Your task to perform on an android device: turn on improve location accuracy Image 0: 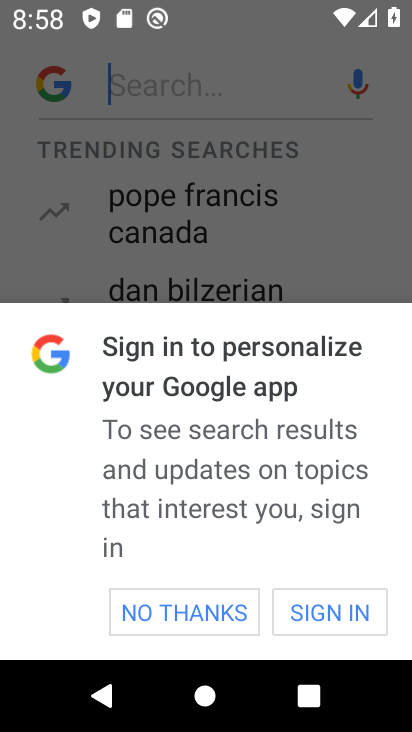
Step 0: press home button
Your task to perform on an android device: turn on improve location accuracy Image 1: 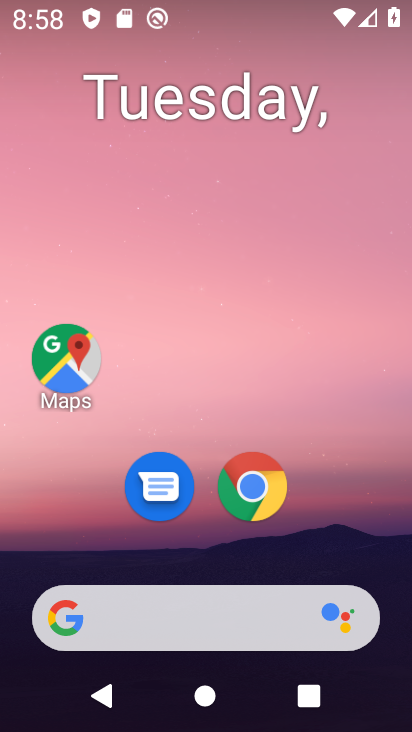
Step 1: drag from (369, 564) to (381, 176)
Your task to perform on an android device: turn on improve location accuracy Image 2: 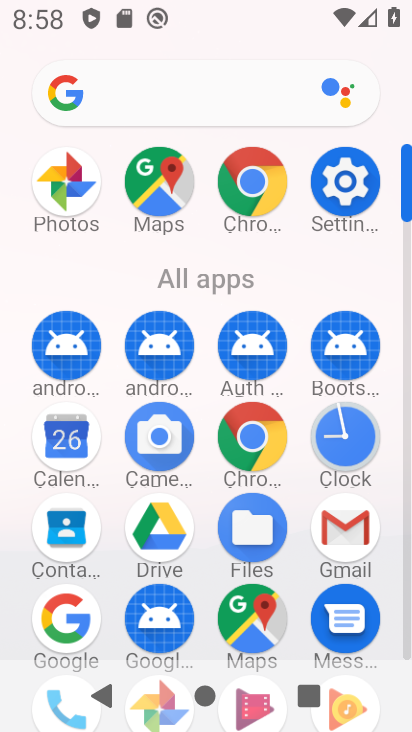
Step 2: click (353, 179)
Your task to perform on an android device: turn on improve location accuracy Image 3: 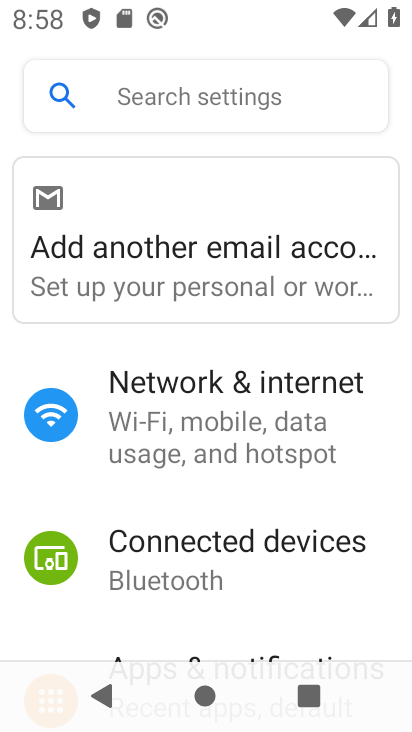
Step 3: drag from (374, 440) to (381, 393)
Your task to perform on an android device: turn on improve location accuracy Image 4: 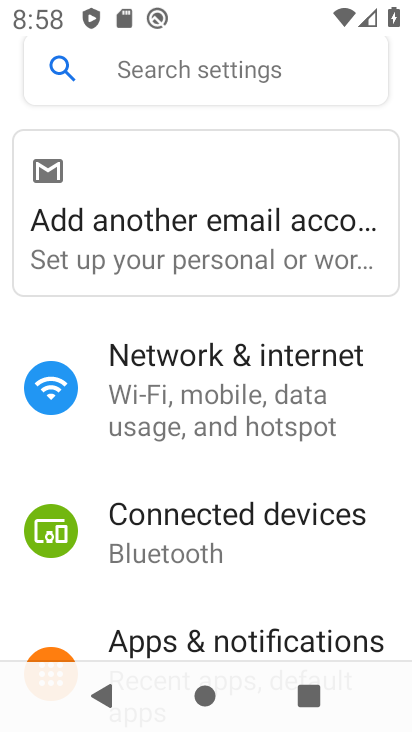
Step 4: drag from (362, 467) to (364, 384)
Your task to perform on an android device: turn on improve location accuracy Image 5: 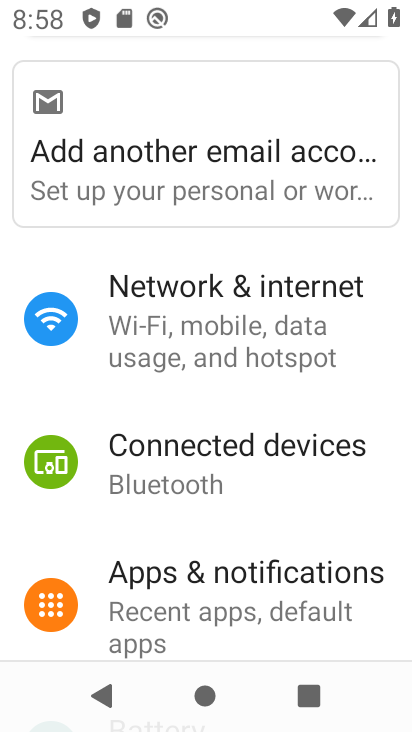
Step 5: drag from (368, 486) to (382, 412)
Your task to perform on an android device: turn on improve location accuracy Image 6: 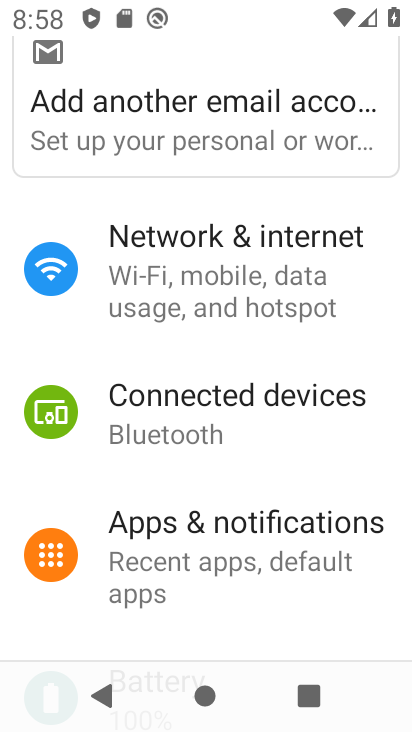
Step 6: drag from (373, 476) to (387, 388)
Your task to perform on an android device: turn on improve location accuracy Image 7: 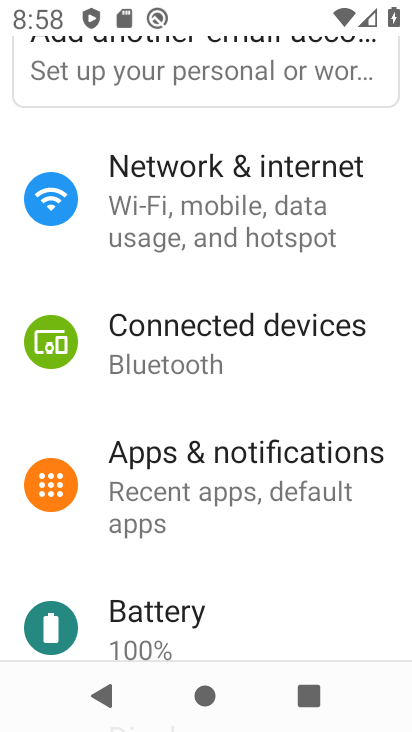
Step 7: drag from (362, 507) to (371, 409)
Your task to perform on an android device: turn on improve location accuracy Image 8: 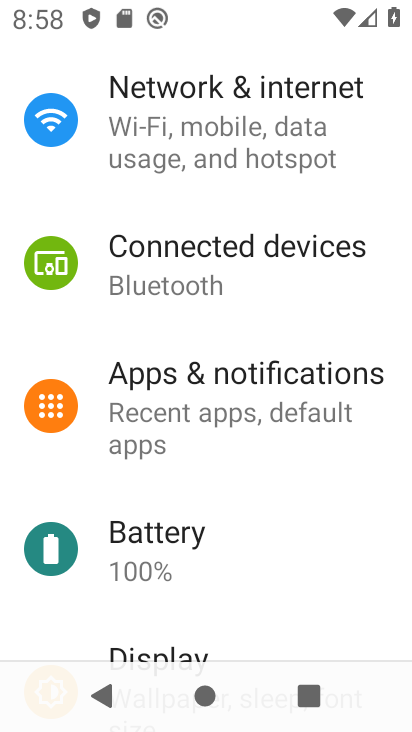
Step 8: drag from (359, 519) to (360, 438)
Your task to perform on an android device: turn on improve location accuracy Image 9: 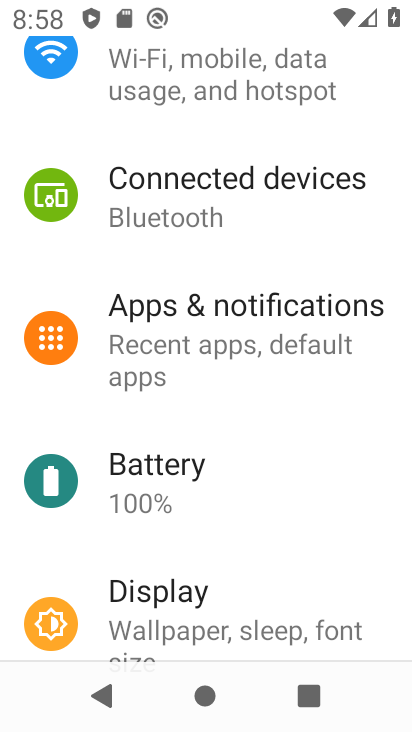
Step 9: drag from (346, 532) to (359, 439)
Your task to perform on an android device: turn on improve location accuracy Image 10: 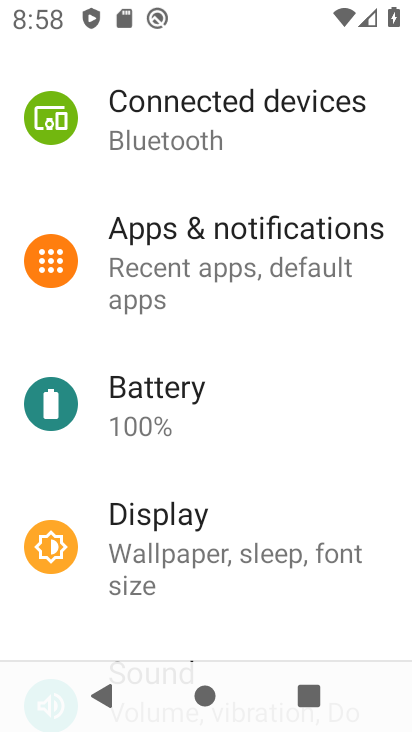
Step 10: drag from (345, 573) to (362, 450)
Your task to perform on an android device: turn on improve location accuracy Image 11: 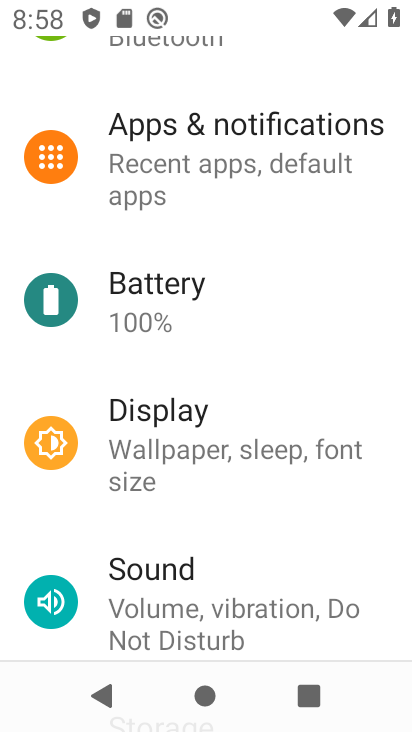
Step 11: drag from (349, 534) to (363, 453)
Your task to perform on an android device: turn on improve location accuracy Image 12: 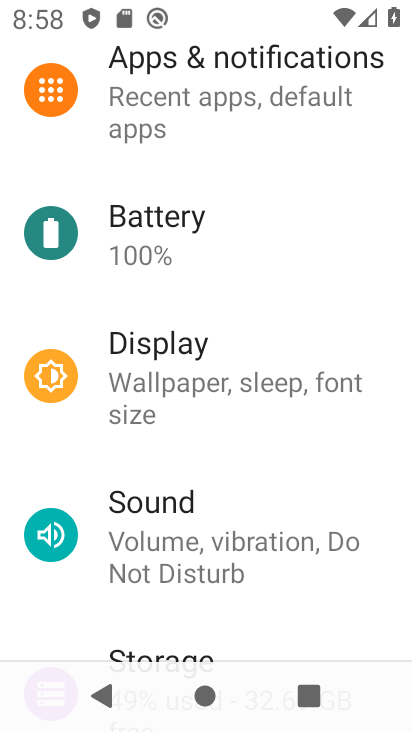
Step 12: drag from (353, 575) to (368, 476)
Your task to perform on an android device: turn on improve location accuracy Image 13: 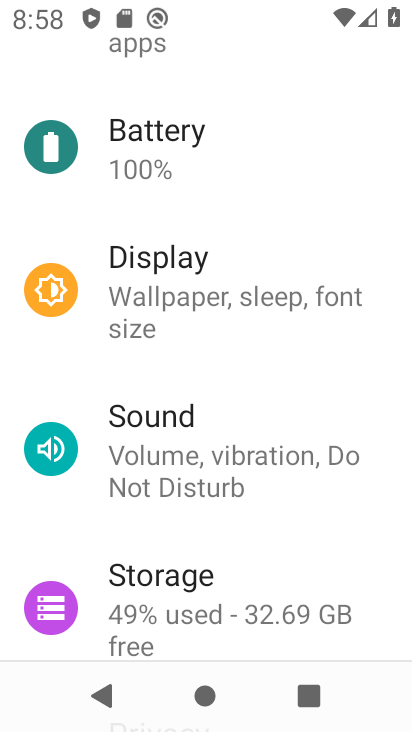
Step 13: drag from (348, 562) to (360, 484)
Your task to perform on an android device: turn on improve location accuracy Image 14: 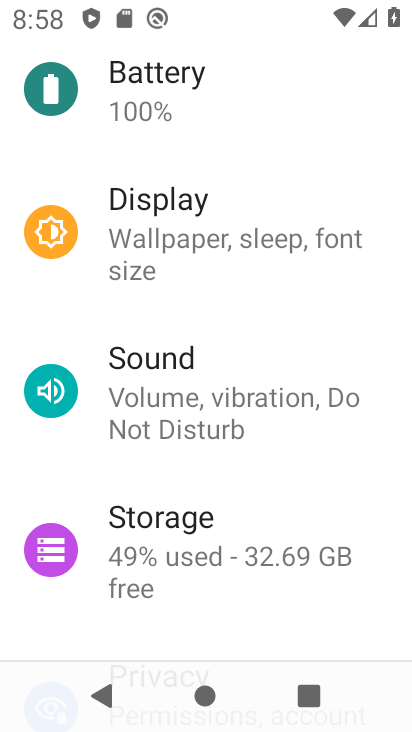
Step 14: drag from (359, 583) to (363, 502)
Your task to perform on an android device: turn on improve location accuracy Image 15: 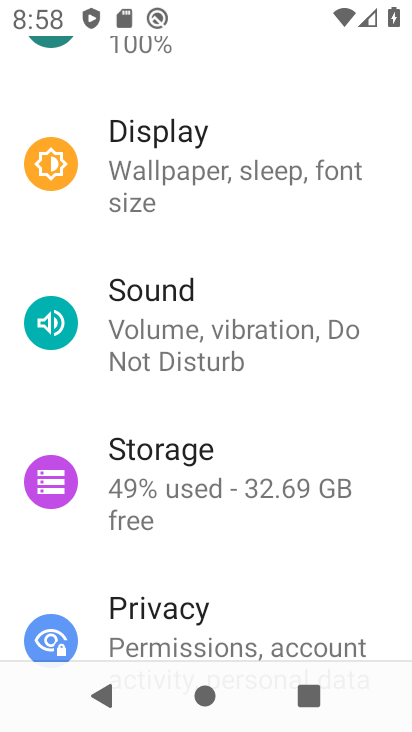
Step 15: drag from (341, 577) to (360, 502)
Your task to perform on an android device: turn on improve location accuracy Image 16: 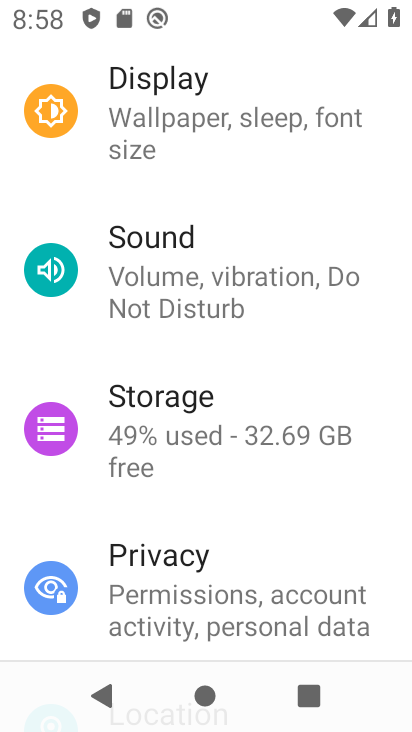
Step 16: drag from (354, 620) to (373, 491)
Your task to perform on an android device: turn on improve location accuracy Image 17: 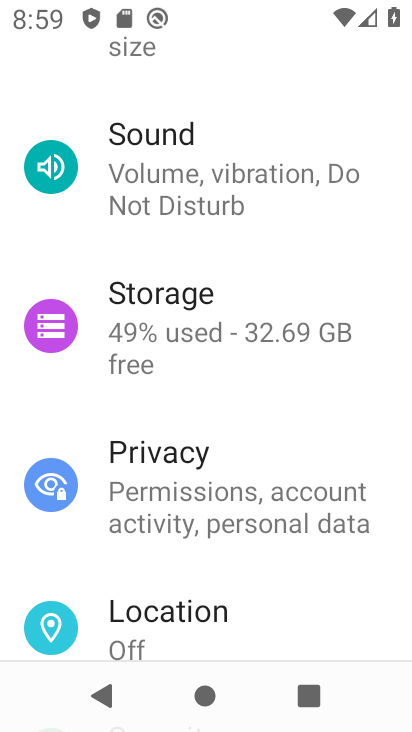
Step 17: drag from (359, 602) to (375, 421)
Your task to perform on an android device: turn on improve location accuracy Image 18: 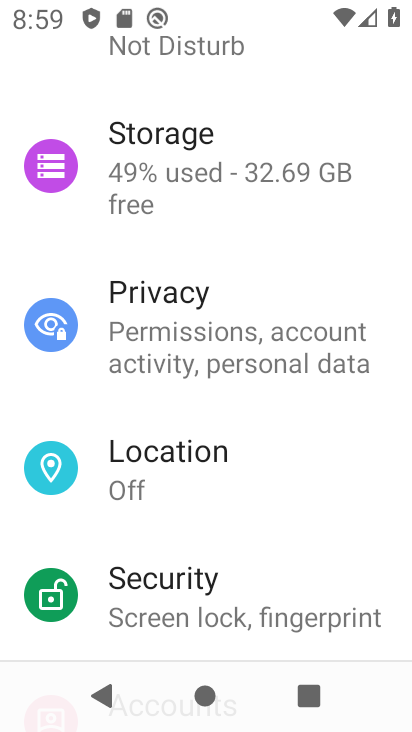
Step 18: drag from (328, 547) to (328, 399)
Your task to perform on an android device: turn on improve location accuracy Image 19: 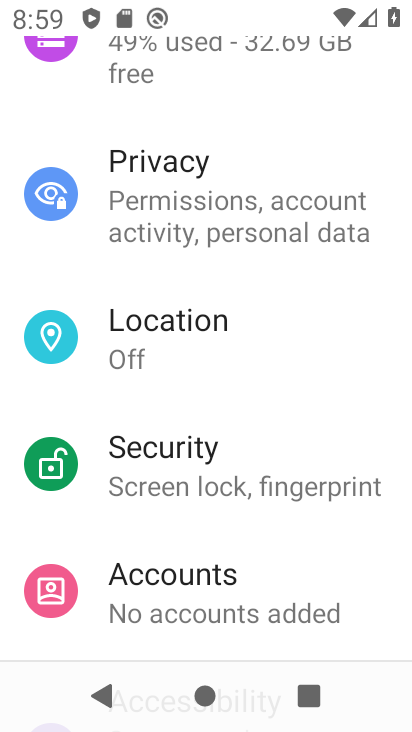
Step 19: click (272, 327)
Your task to perform on an android device: turn on improve location accuracy Image 20: 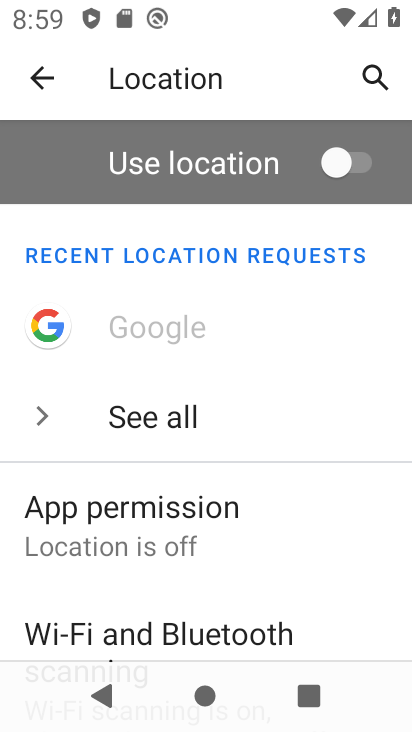
Step 20: drag from (295, 495) to (301, 431)
Your task to perform on an android device: turn on improve location accuracy Image 21: 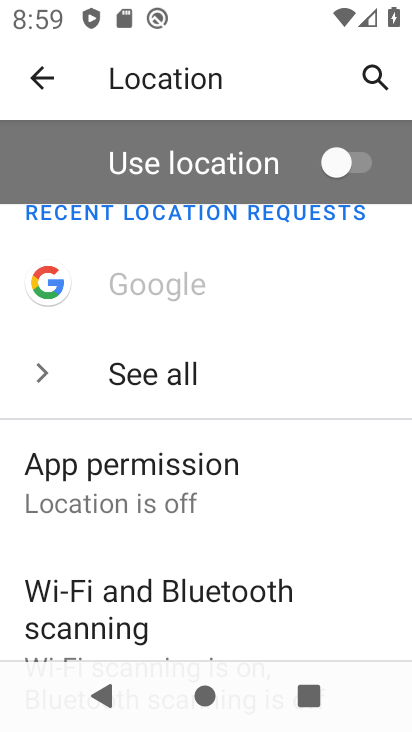
Step 21: drag from (323, 523) to (352, 385)
Your task to perform on an android device: turn on improve location accuracy Image 22: 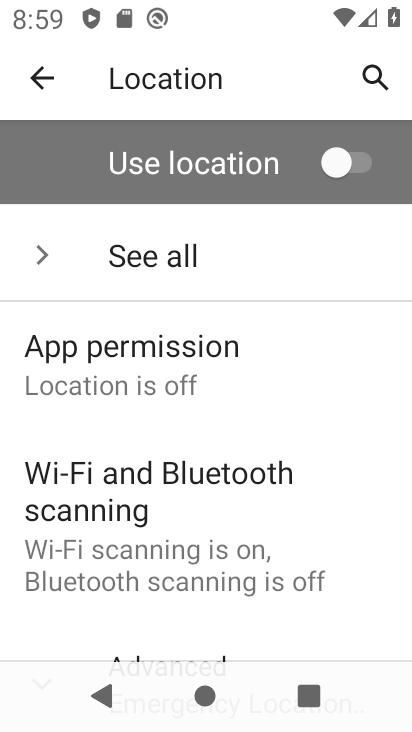
Step 22: drag from (351, 535) to (353, 358)
Your task to perform on an android device: turn on improve location accuracy Image 23: 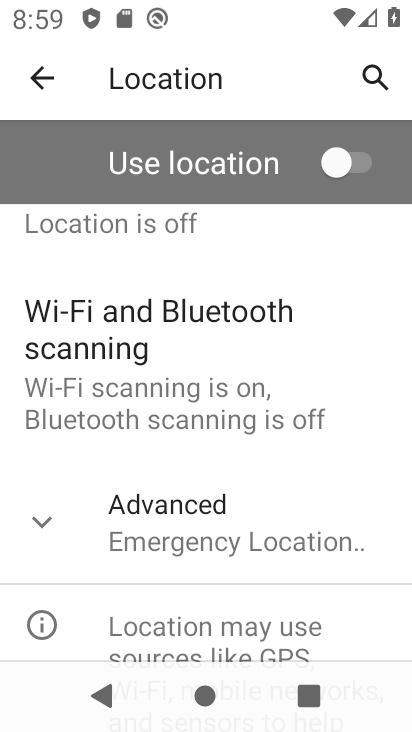
Step 23: drag from (354, 523) to (362, 412)
Your task to perform on an android device: turn on improve location accuracy Image 24: 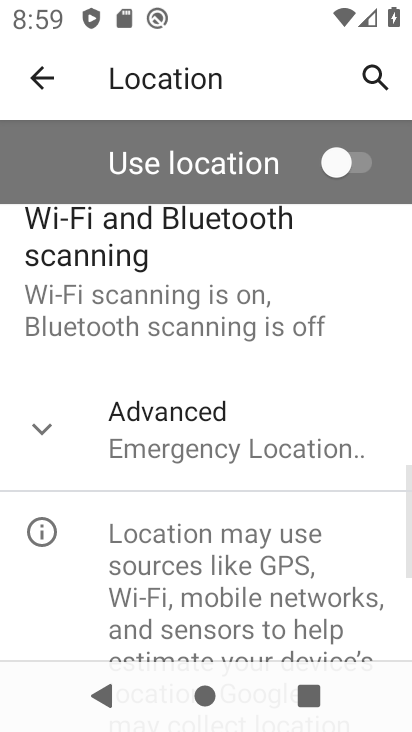
Step 24: click (356, 426)
Your task to perform on an android device: turn on improve location accuracy Image 25: 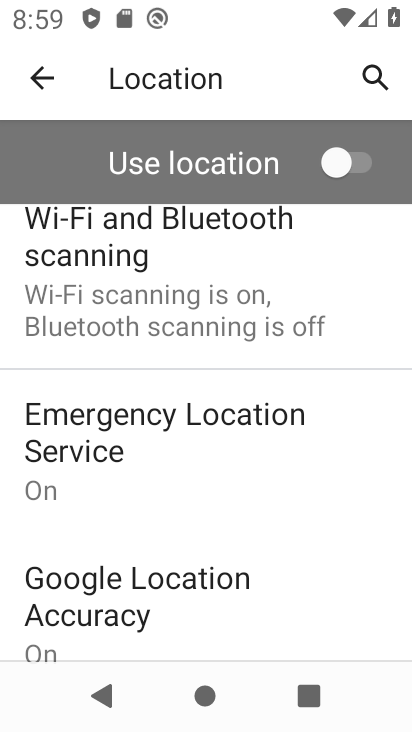
Step 25: drag from (333, 535) to (334, 424)
Your task to perform on an android device: turn on improve location accuracy Image 26: 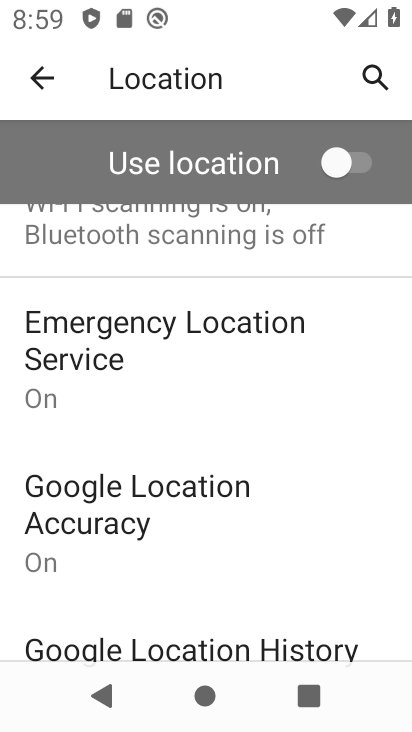
Step 26: click (296, 511)
Your task to perform on an android device: turn on improve location accuracy Image 27: 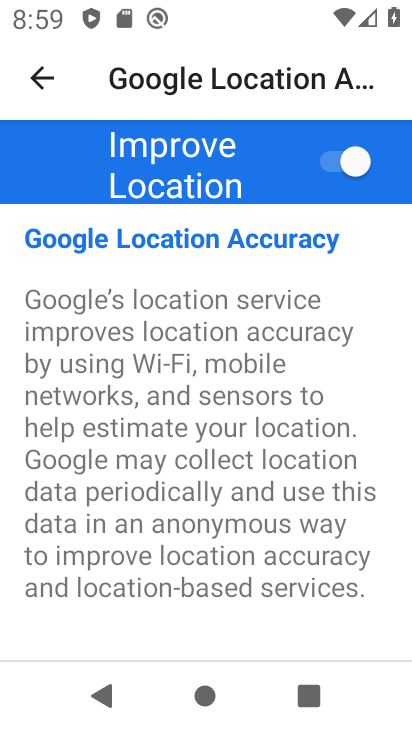
Step 27: task complete